Your task to perform on an android device: Turn off the flashlight Image 0: 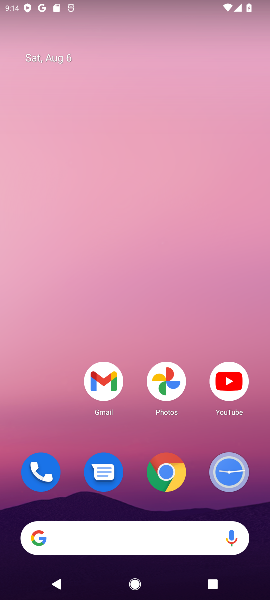
Step 0: click (162, 467)
Your task to perform on an android device: Turn off the flashlight Image 1: 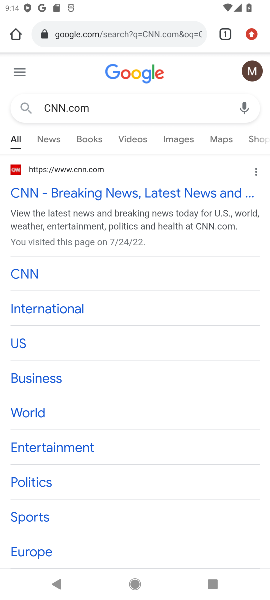
Step 1: press home button
Your task to perform on an android device: Turn off the flashlight Image 2: 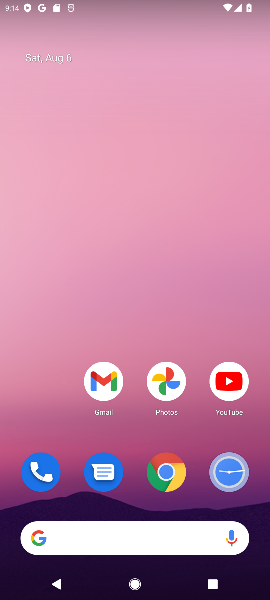
Step 2: drag from (261, 581) to (176, 175)
Your task to perform on an android device: Turn off the flashlight Image 3: 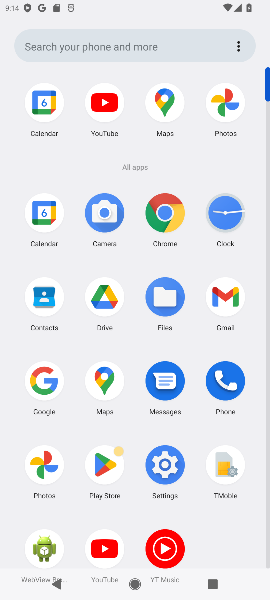
Step 3: click (167, 463)
Your task to perform on an android device: Turn off the flashlight Image 4: 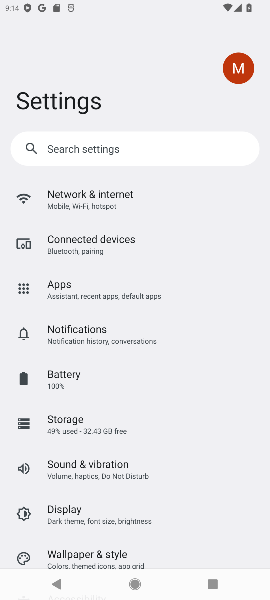
Step 4: click (62, 510)
Your task to perform on an android device: Turn off the flashlight Image 5: 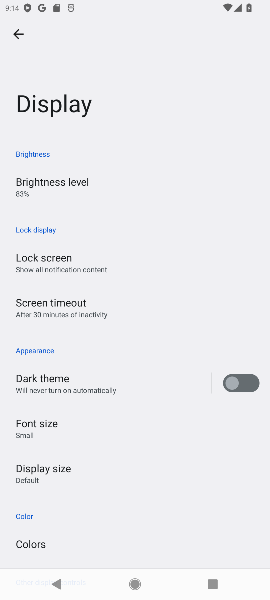
Step 5: task complete